Your task to perform on an android device: change timer sound Image 0: 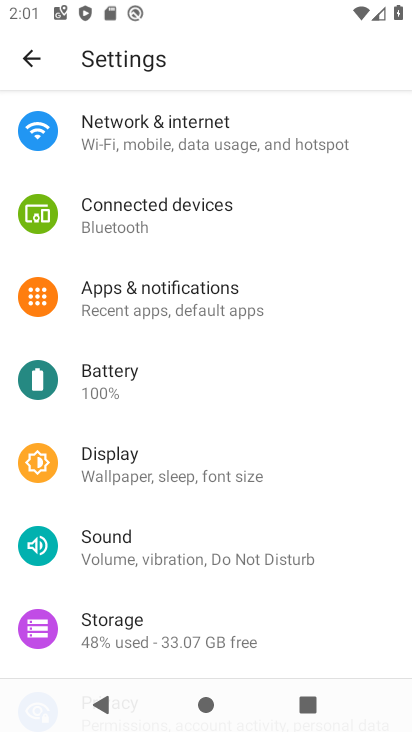
Step 0: press home button
Your task to perform on an android device: change timer sound Image 1: 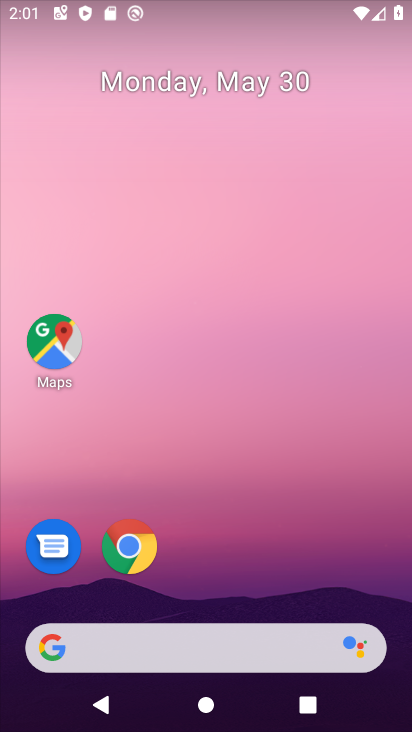
Step 1: drag from (217, 589) to (231, 100)
Your task to perform on an android device: change timer sound Image 2: 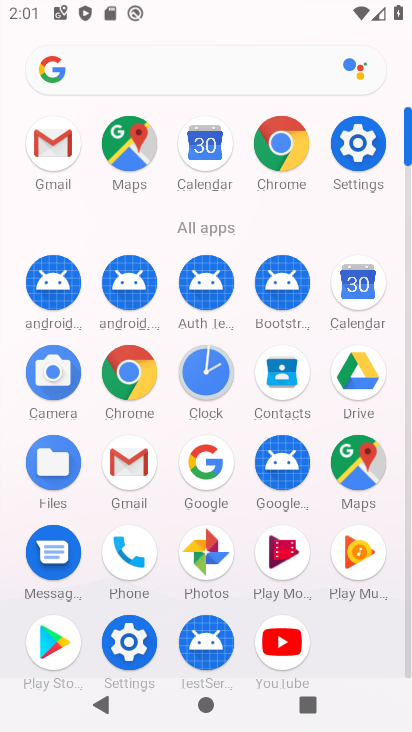
Step 2: click (206, 361)
Your task to perform on an android device: change timer sound Image 3: 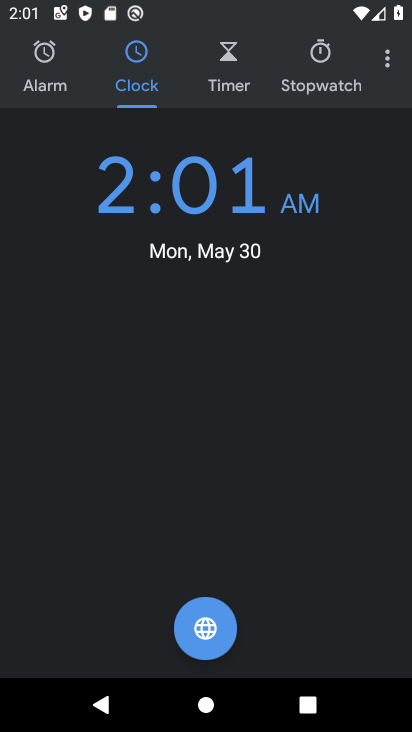
Step 3: click (389, 68)
Your task to perform on an android device: change timer sound Image 4: 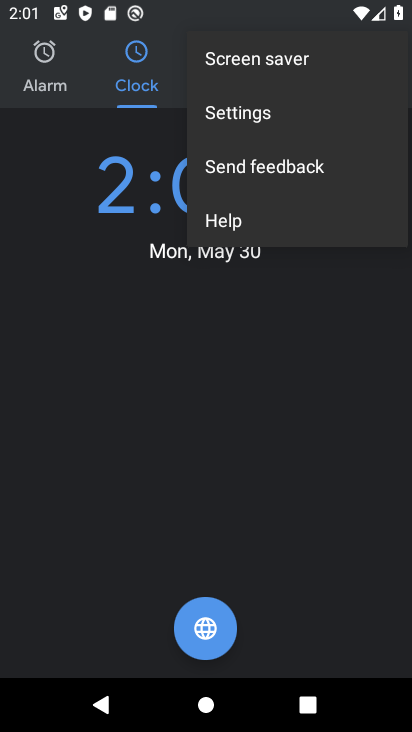
Step 4: click (291, 104)
Your task to perform on an android device: change timer sound Image 5: 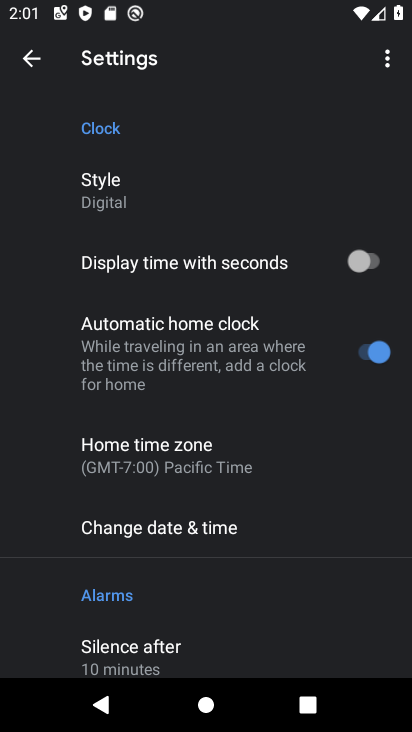
Step 5: drag from (206, 602) to (232, 211)
Your task to perform on an android device: change timer sound Image 6: 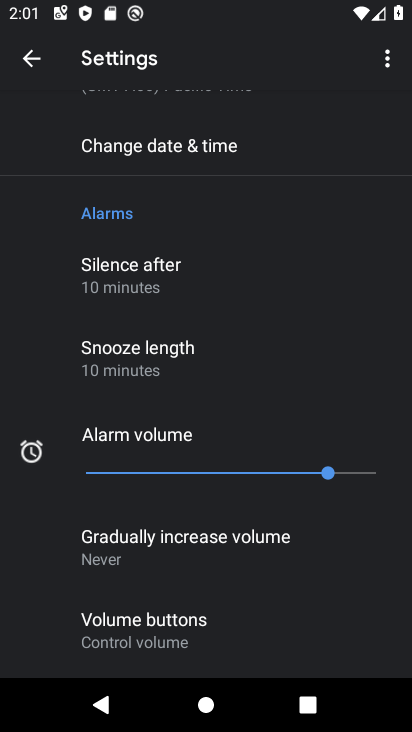
Step 6: drag from (209, 616) to (258, 261)
Your task to perform on an android device: change timer sound Image 7: 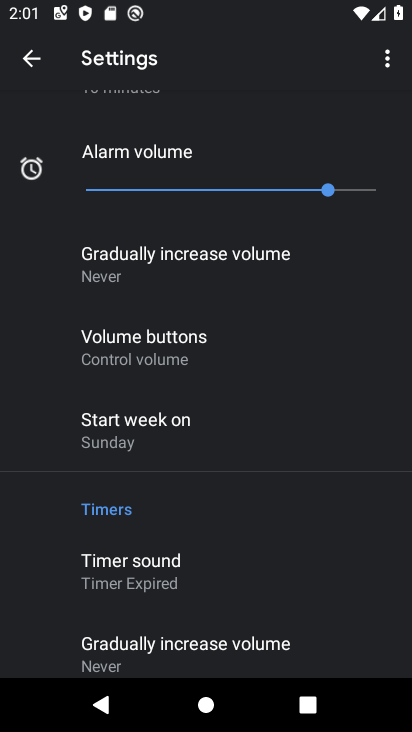
Step 7: click (189, 570)
Your task to perform on an android device: change timer sound Image 8: 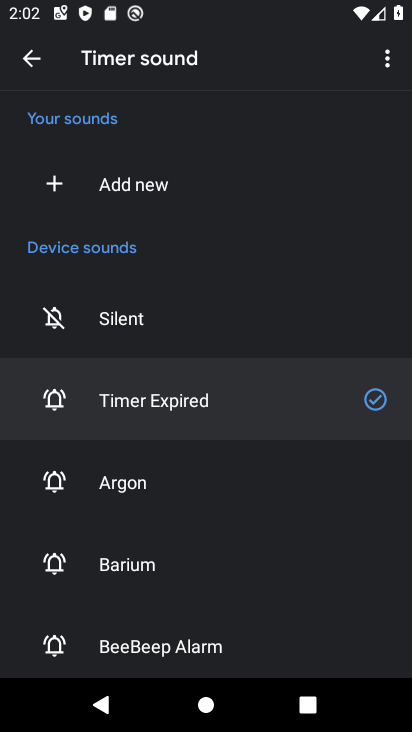
Step 8: click (167, 571)
Your task to perform on an android device: change timer sound Image 9: 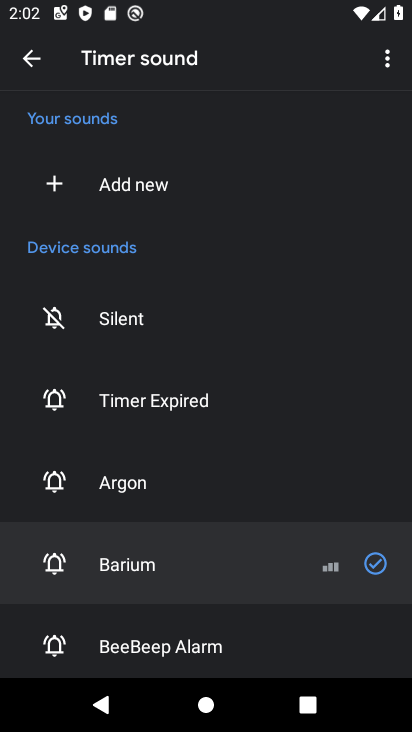
Step 9: task complete